Your task to perform on an android device: add a contact Image 0: 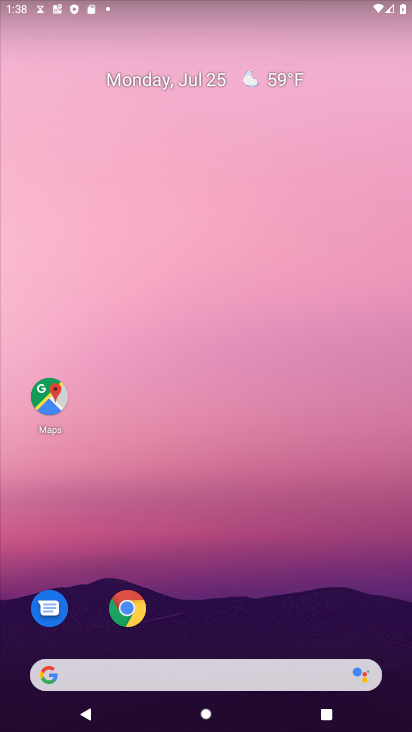
Step 0: drag from (198, 555) to (96, 82)
Your task to perform on an android device: add a contact Image 1: 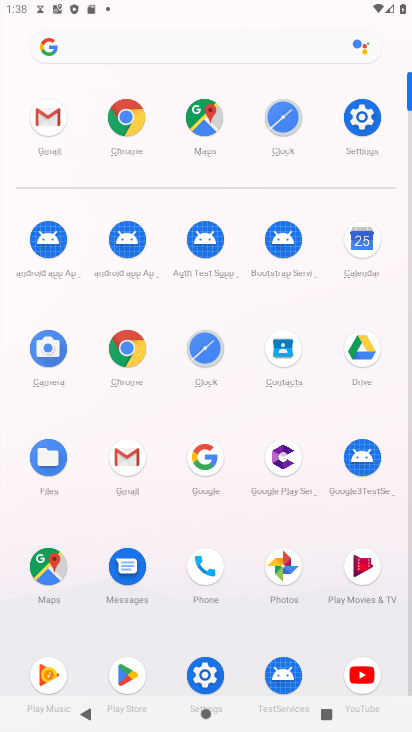
Step 1: click (289, 361)
Your task to perform on an android device: add a contact Image 2: 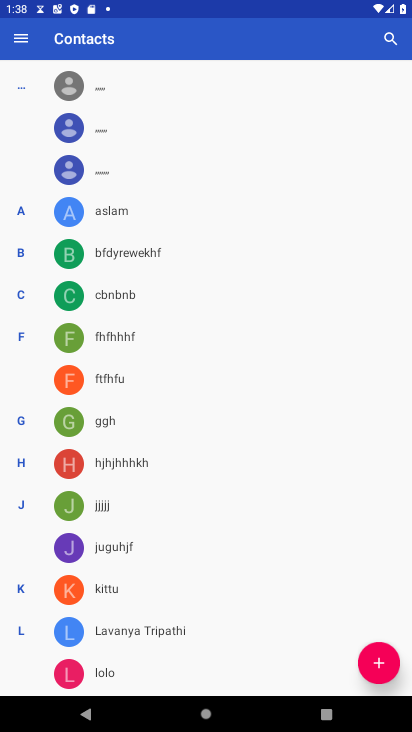
Step 2: click (383, 672)
Your task to perform on an android device: add a contact Image 3: 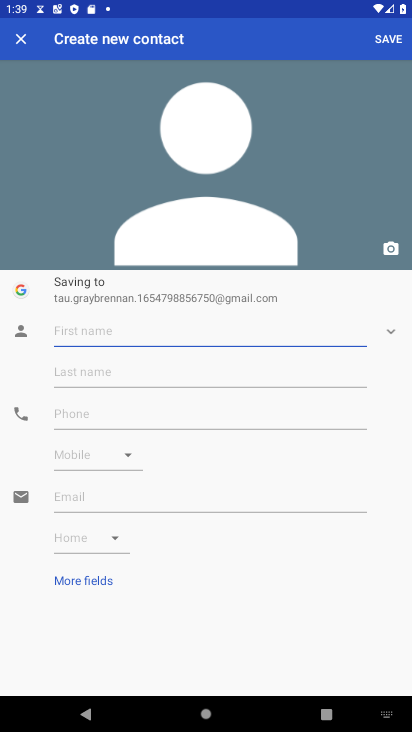
Step 3: type "gbgccbcgc"
Your task to perform on an android device: add a contact Image 4: 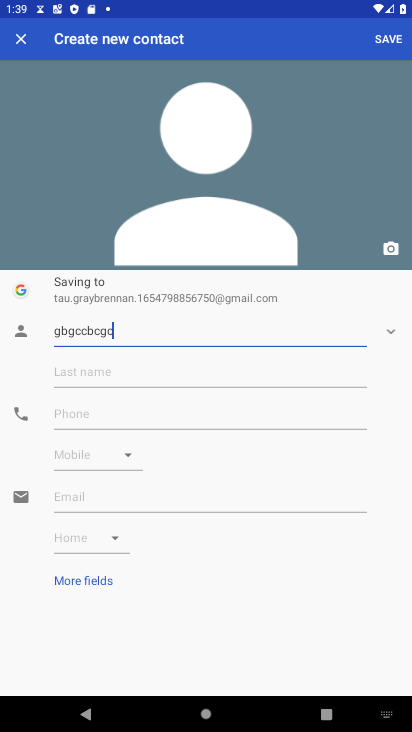
Step 4: type ""
Your task to perform on an android device: add a contact Image 5: 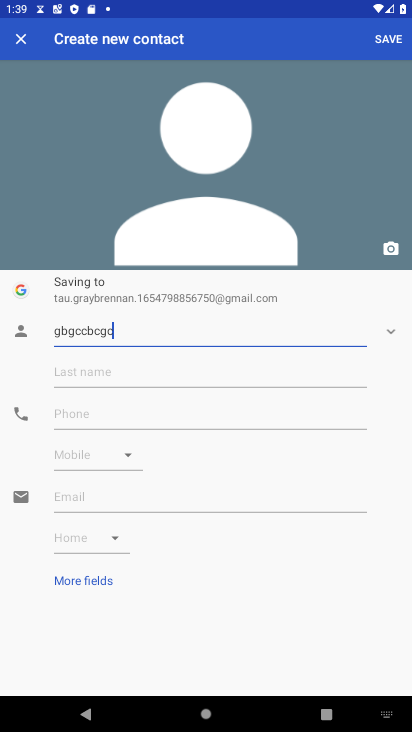
Step 5: click (388, 40)
Your task to perform on an android device: add a contact Image 6: 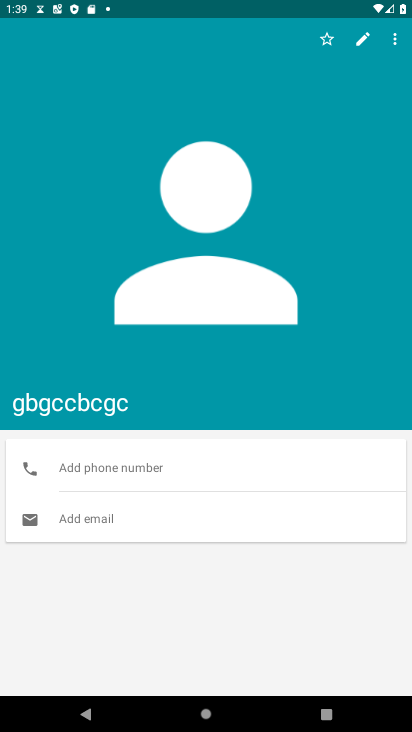
Step 6: task complete